Your task to perform on an android device: set default search engine in the chrome app Image 0: 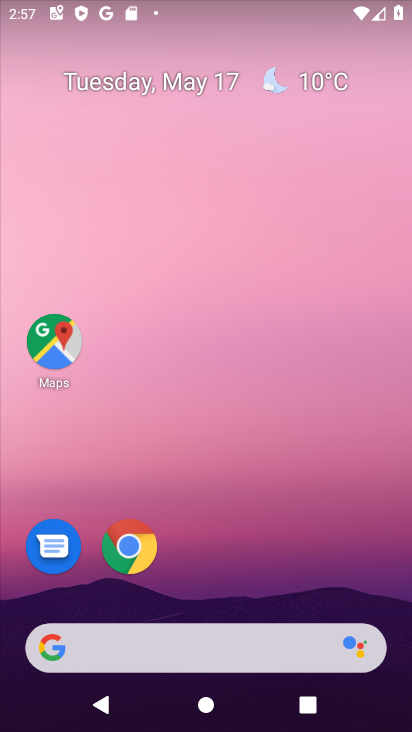
Step 0: click (131, 544)
Your task to perform on an android device: set default search engine in the chrome app Image 1: 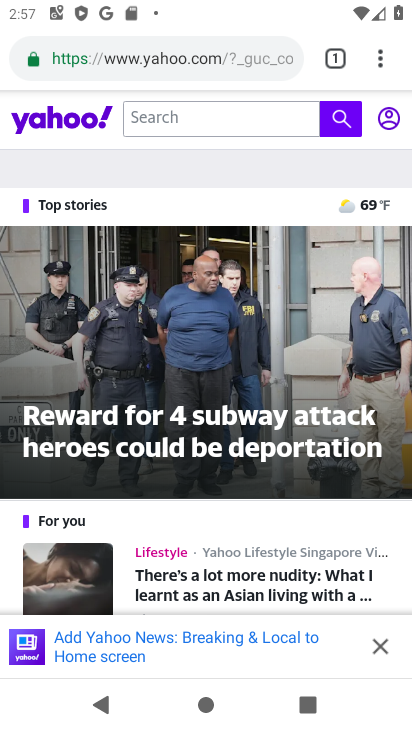
Step 1: click (386, 55)
Your task to perform on an android device: set default search engine in the chrome app Image 2: 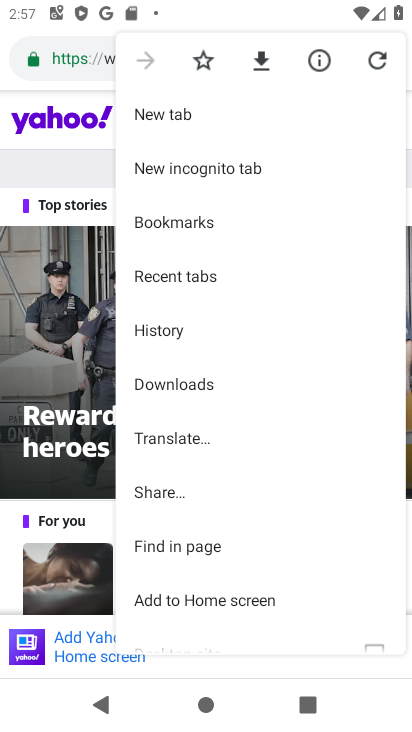
Step 2: drag from (193, 574) to (204, 292)
Your task to perform on an android device: set default search engine in the chrome app Image 3: 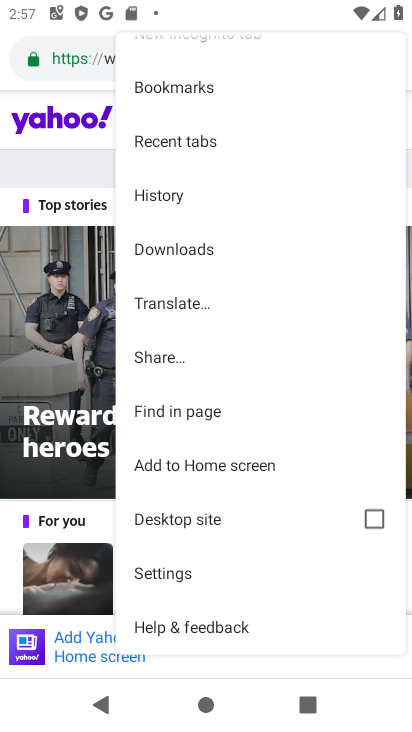
Step 3: click (170, 577)
Your task to perform on an android device: set default search engine in the chrome app Image 4: 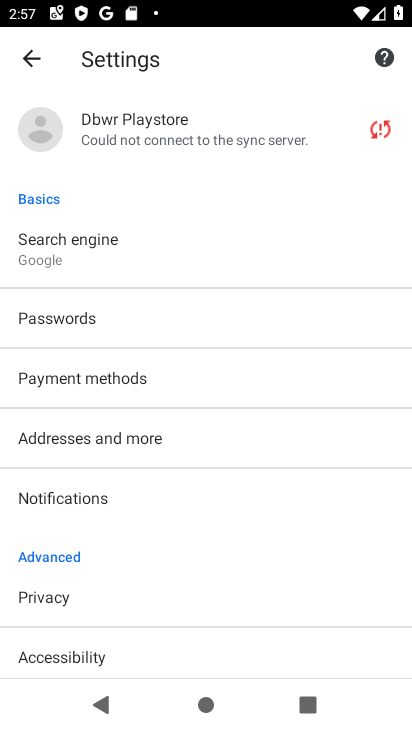
Step 4: click (90, 249)
Your task to perform on an android device: set default search engine in the chrome app Image 5: 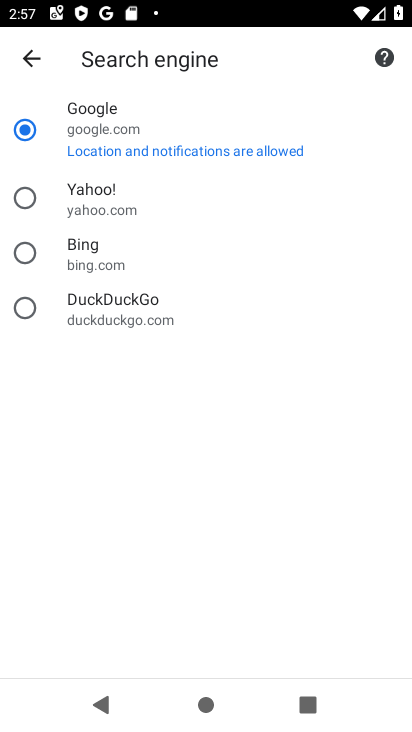
Step 5: click (146, 154)
Your task to perform on an android device: set default search engine in the chrome app Image 6: 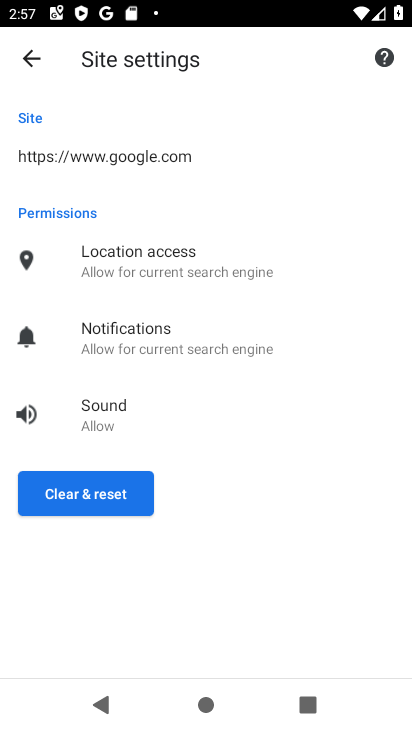
Step 6: click (108, 498)
Your task to perform on an android device: set default search engine in the chrome app Image 7: 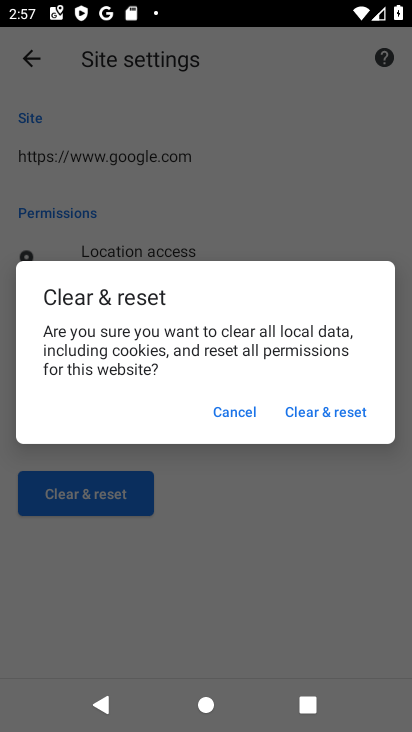
Step 7: click (324, 406)
Your task to perform on an android device: set default search engine in the chrome app Image 8: 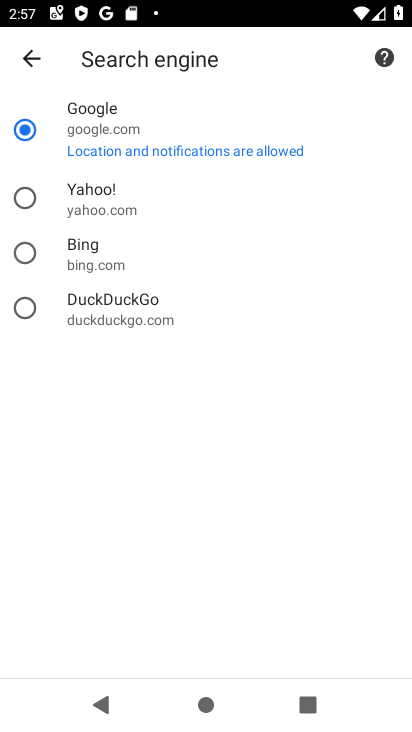
Step 8: task complete